Your task to perform on an android device: Show me popular videos on Youtube Image 0: 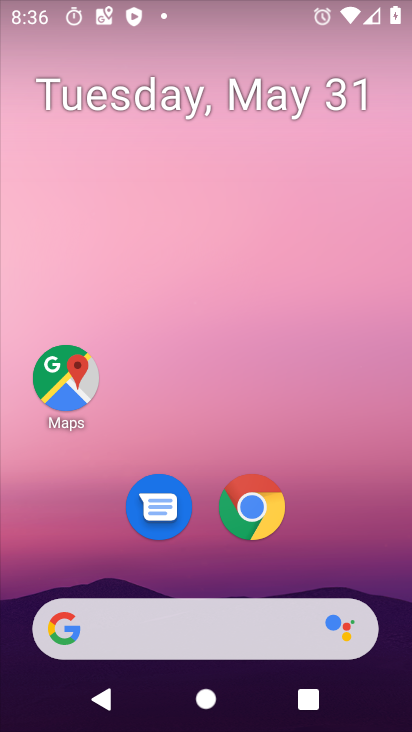
Step 0: drag from (363, 594) to (332, 53)
Your task to perform on an android device: Show me popular videos on Youtube Image 1: 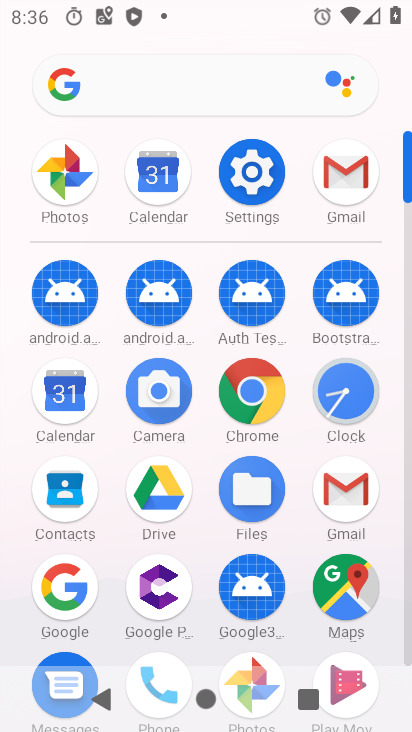
Step 1: drag from (407, 592) to (410, 489)
Your task to perform on an android device: Show me popular videos on Youtube Image 2: 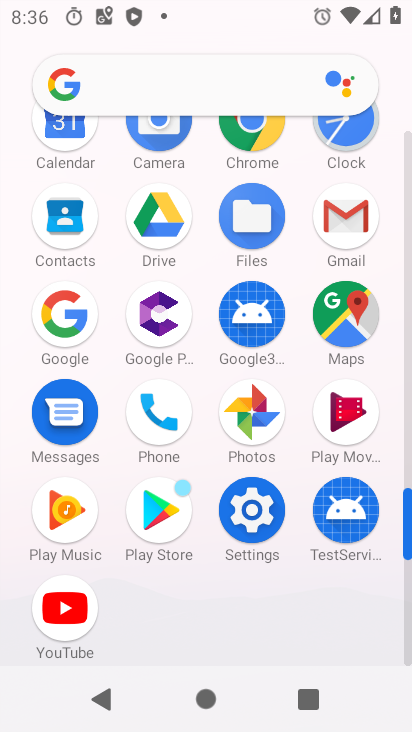
Step 2: click (69, 615)
Your task to perform on an android device: Show me popular videos on Youtube Image 3: 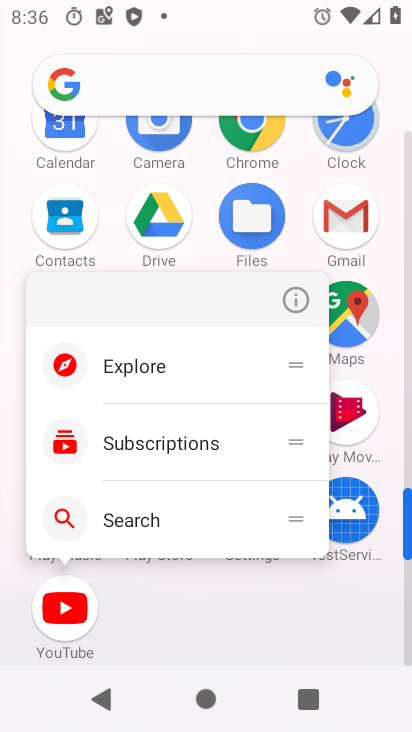
Step 3: click (69, 615)
Your task to perform on an android device: Show me popular videos on Youtube Image 4: 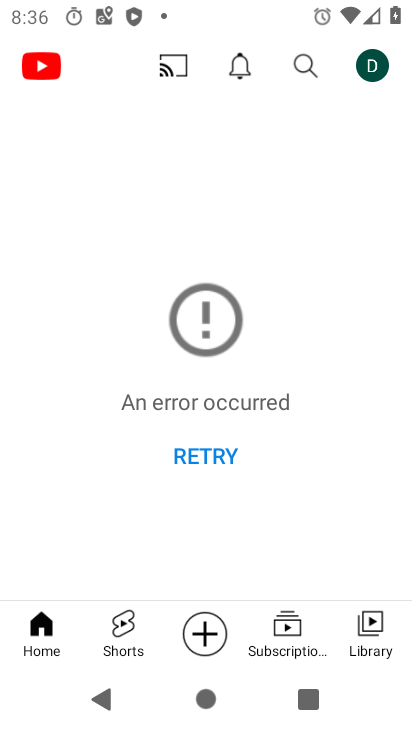
Step 4: click (34, 627)
Your task to perform on an android device: Show me popular videos on Youtube Image 5: 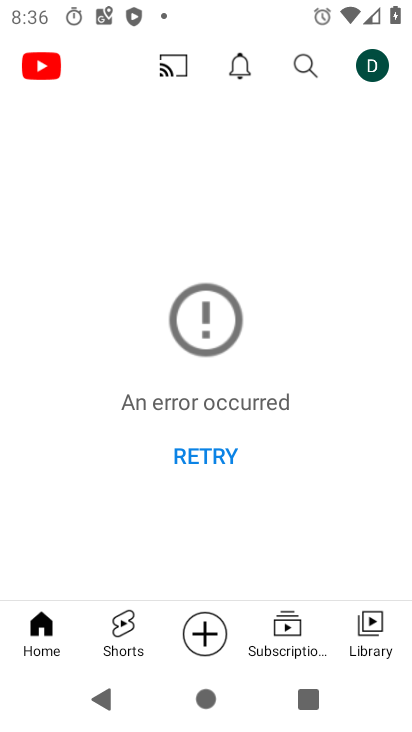
Step 5: click (31, 627)
Your task to perform on an android device: Show me popular videos on Youtube Image 6: 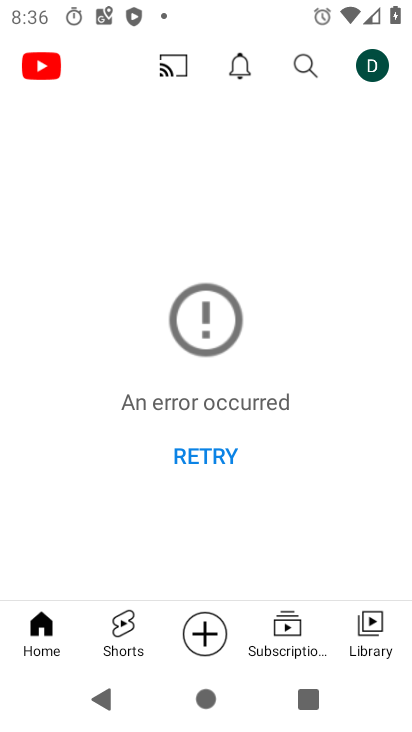
Step 6: click (186, 474)
Your task to perform on an android device: Show me popular videos on Youtube Image 7: 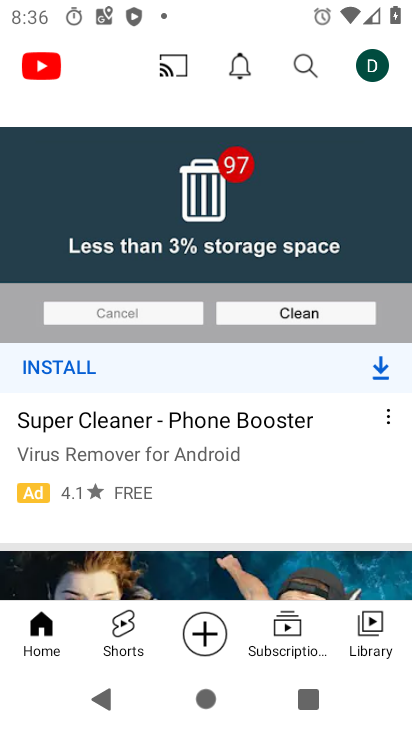
Step 7: task complete